Your task to perform on an android device: Search for seafood restaurants on Google Maps Image 0: 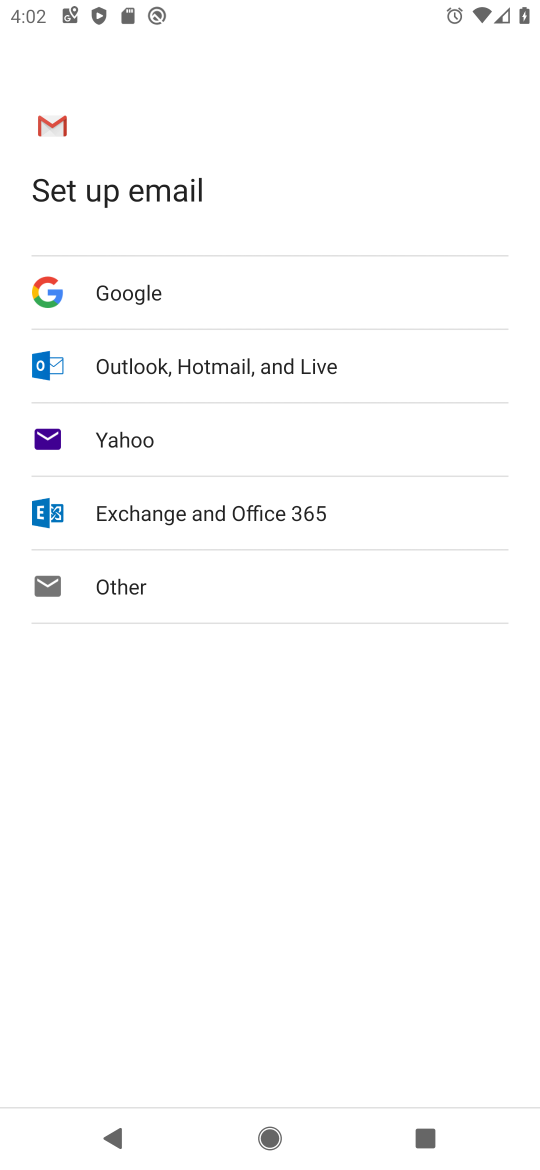
Step 0: press home button
Your task to perform on an android device: Search for seafood restaurants on Google Maps Image 1: 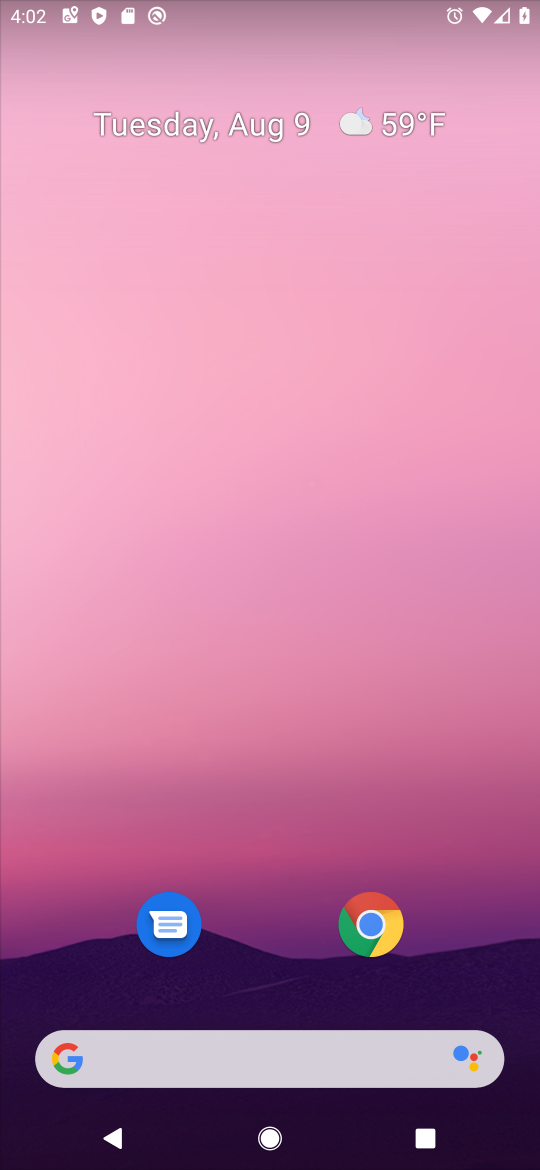
Step 1: drag from (265, 835) to (291, 52)
Your task to perform on an android device: Search for seafood restaurants on Google Maps Image 2: 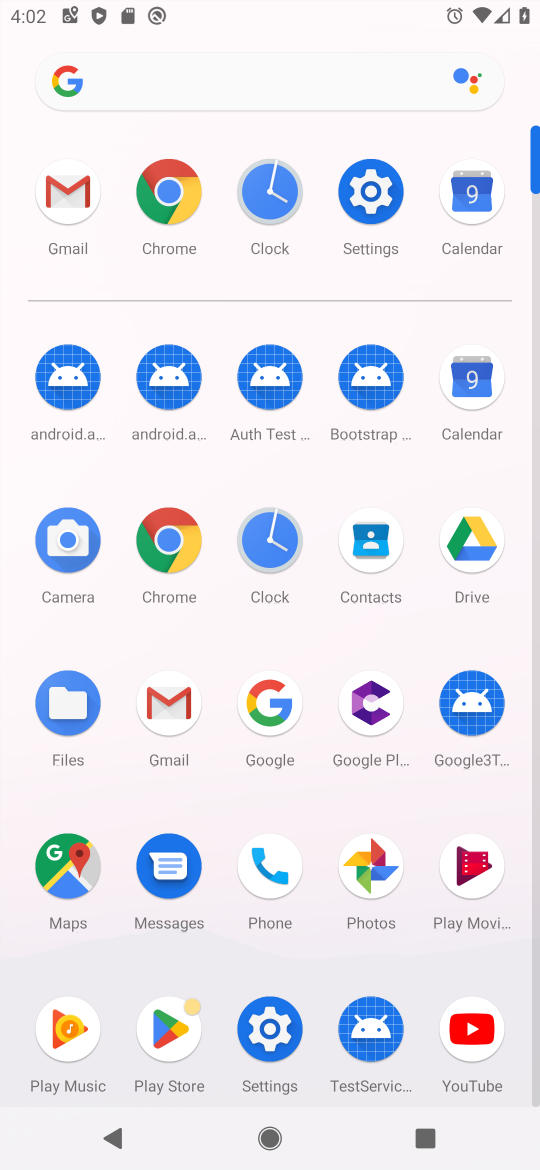
Step 2: click (71, 873)
Your task to perform on an android device: Search for seafood restaurants on Google Maps Image 3: 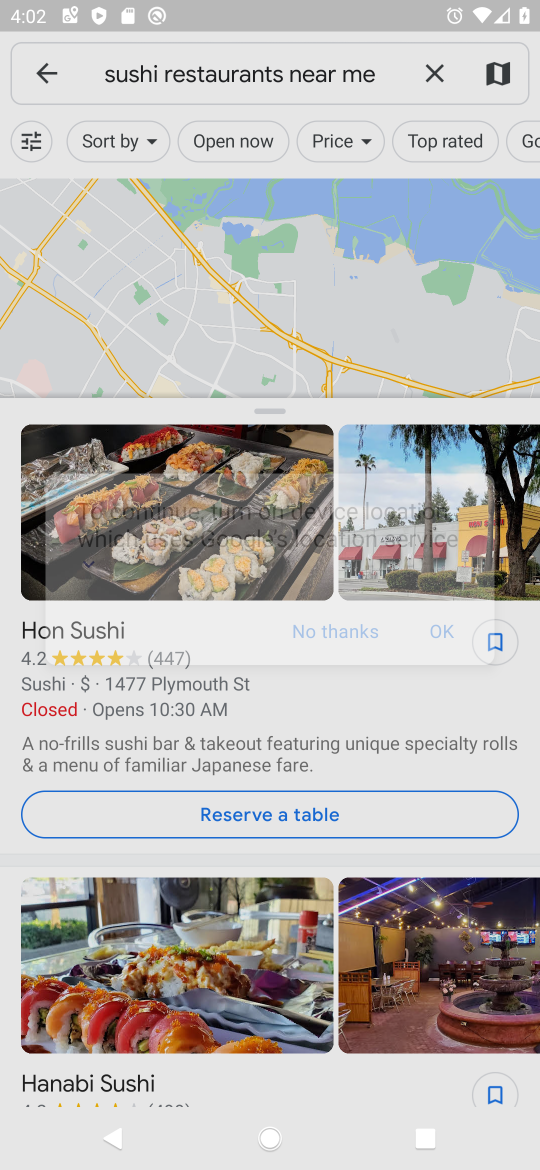
Step 3: click (437, 60)
Your task to perform on an android device: Search for seafood restaurants on Google Maps Image 4: 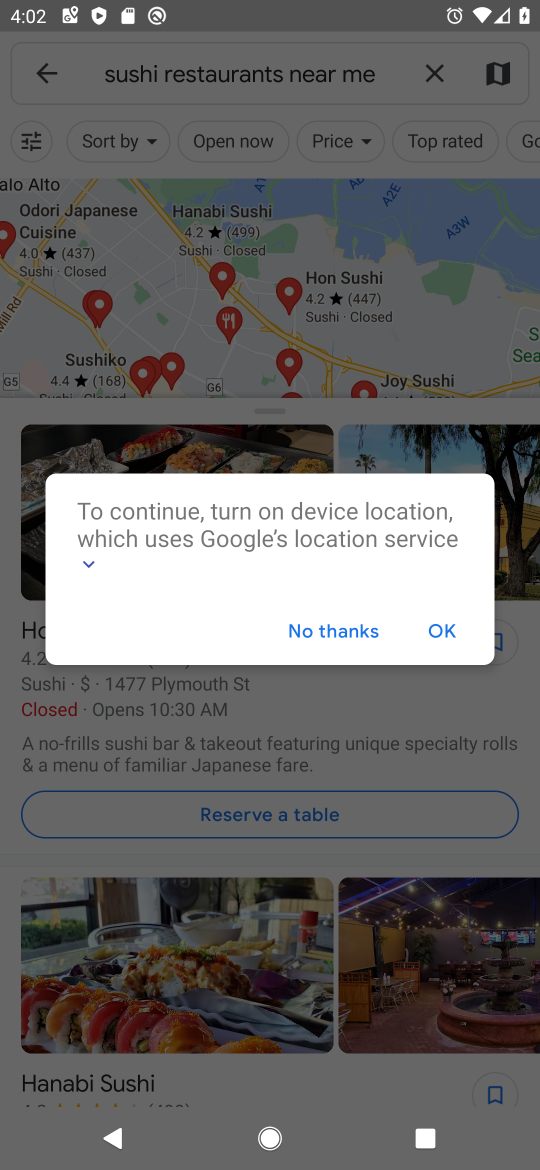
Step 4: click (442, 626)
Your task to perform on an android device: Search for seafood restaurants on Google Maps Image 5: 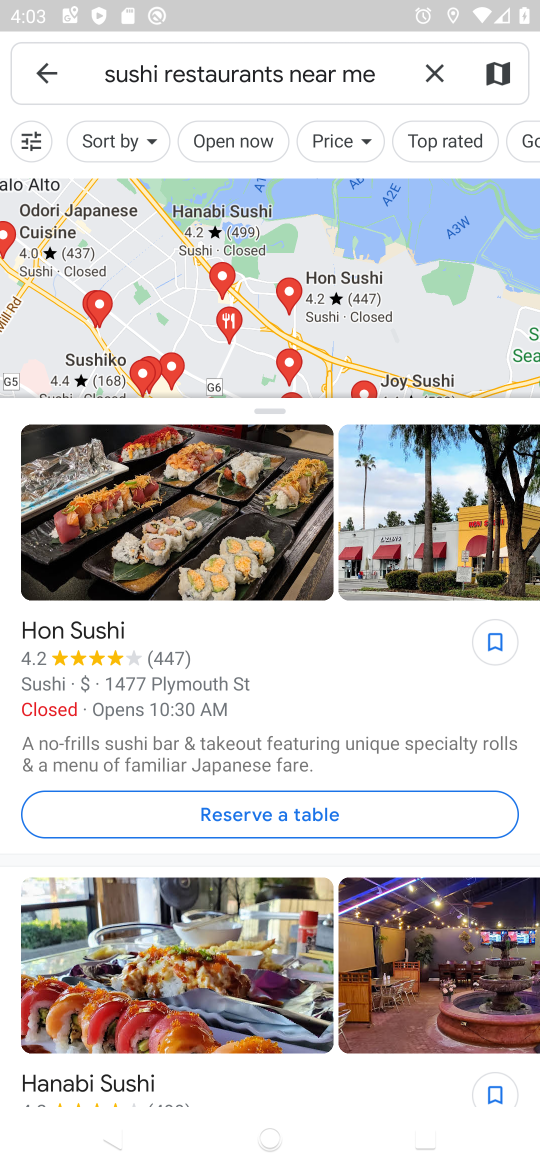
Step 5: click (421, 68)
Your task to perform on an android device: Search for seafood restaurants on Google Maps Image 6: 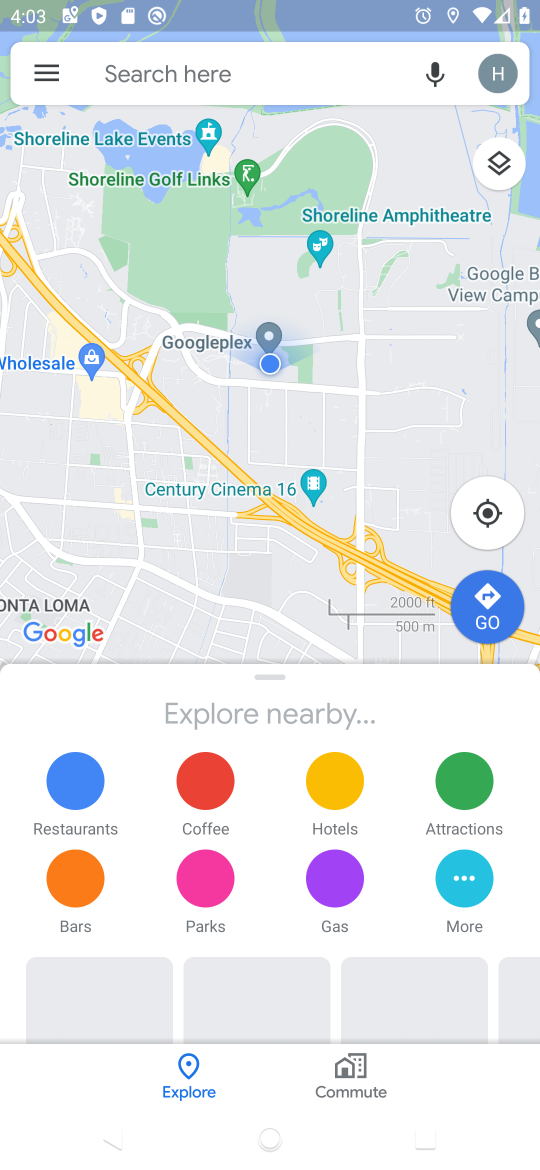
Step 6: click (300, 65)
Your task to perform on an android device: Search for seafood restaurants on Google Maps Image 7: 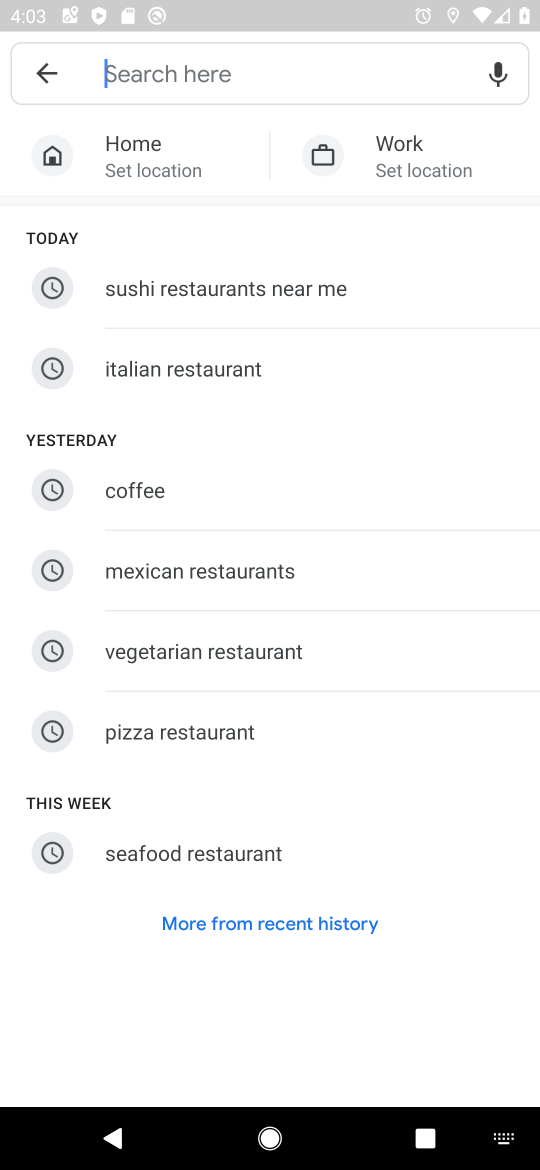
Step 7: click (207, 856)
Your task to perform on an android device: Search for seafood restaurants on Google Maps Image 8: 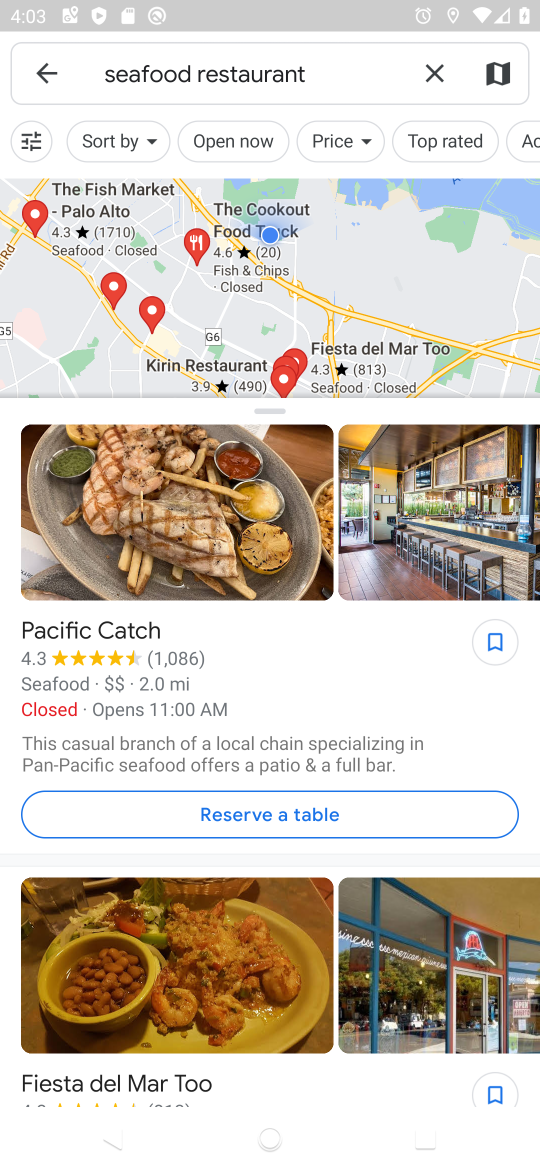
Step 8: task complete